Your task to perform on an android device: toggle translation in the chrome app Image 0: 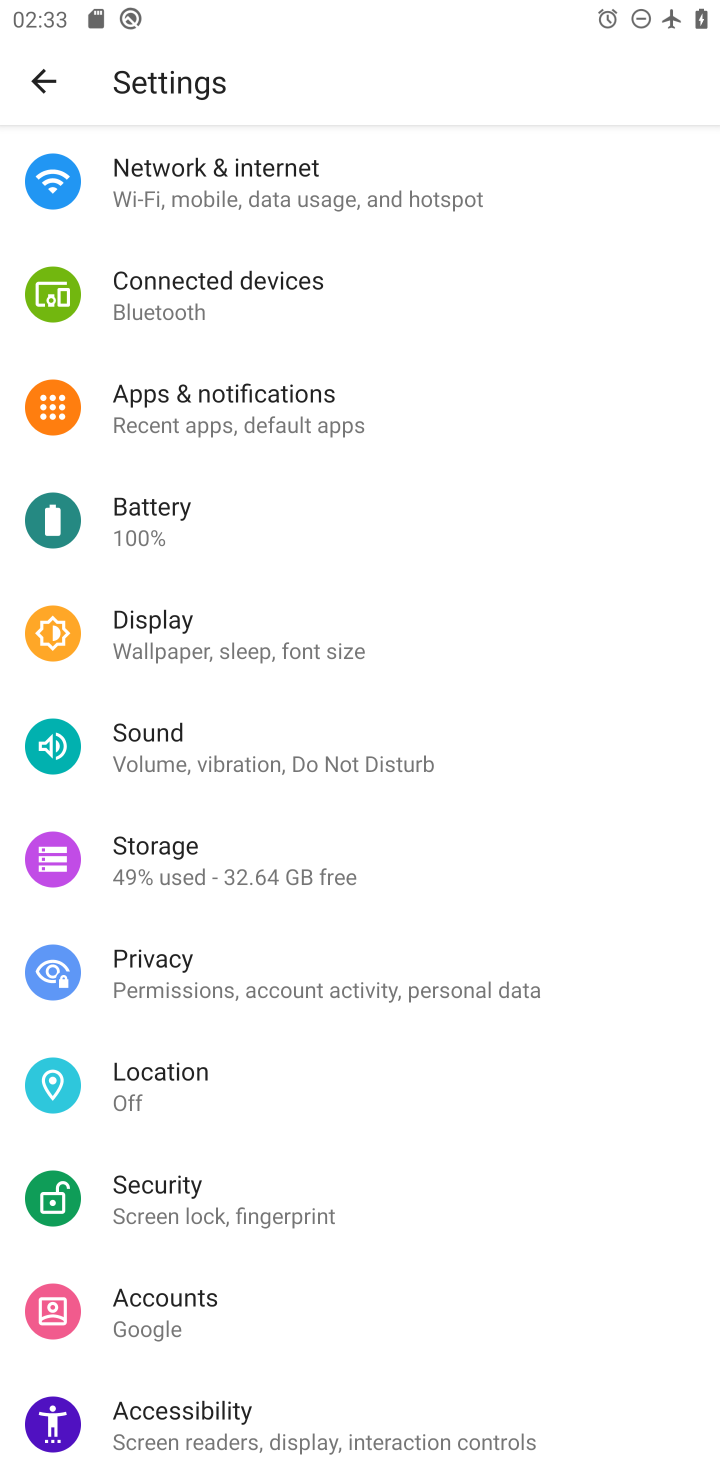
Step 0: press home button
Your task to perform on an android device: toggle translation in the chrome app Image 1: 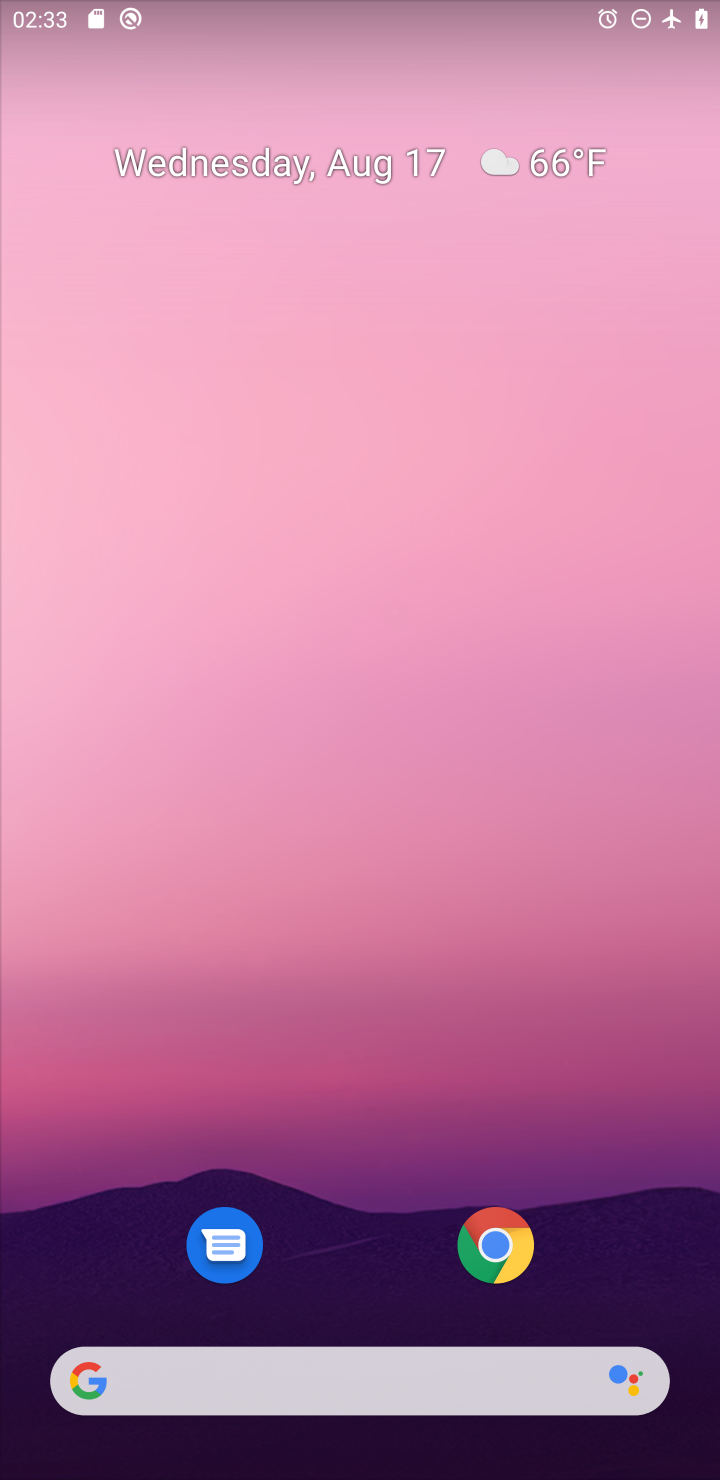
Step 1: click (491, 1260)
Your task to perform on an android device: toggle translation in the chrome app Image 2: 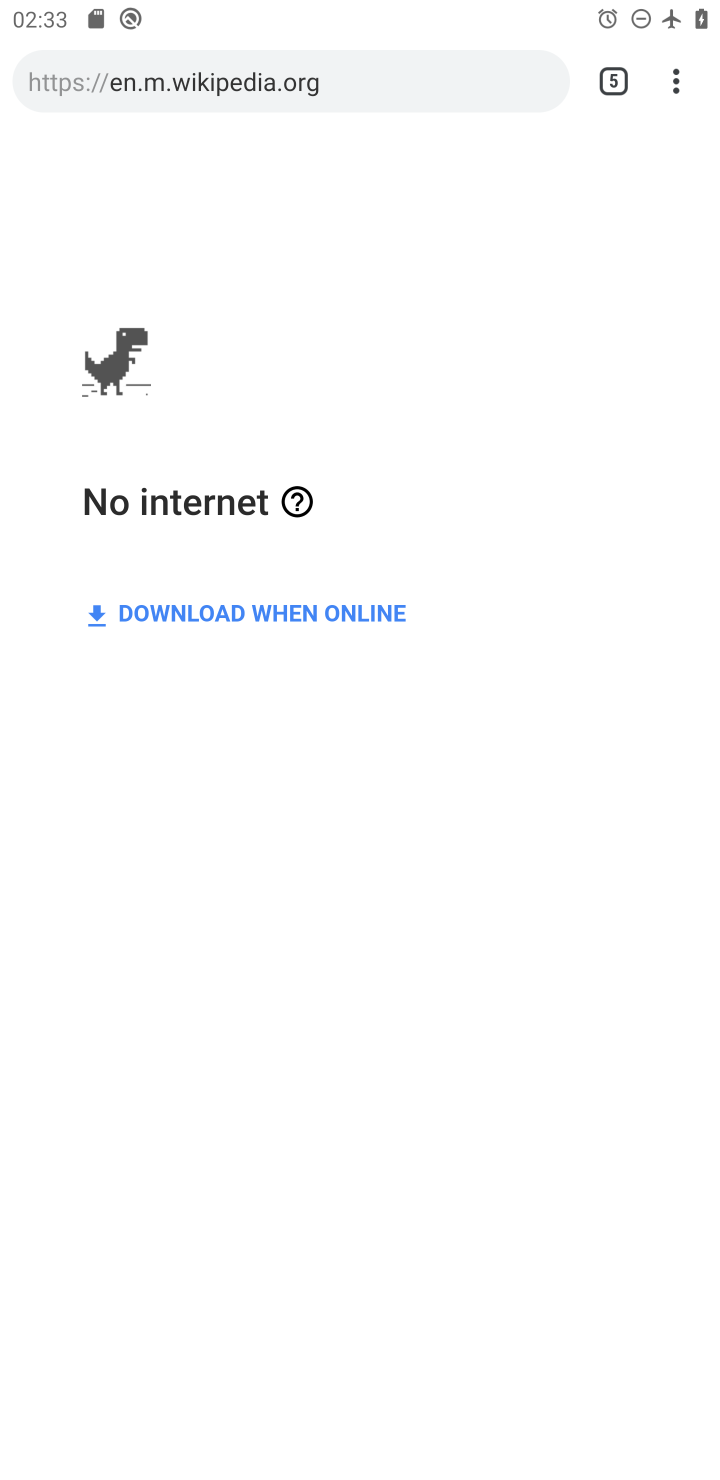
Step 2: drag from (675, 88) to (390, 999)
Your task to perform on an android device: toggle translation in the chrome app Image 3: 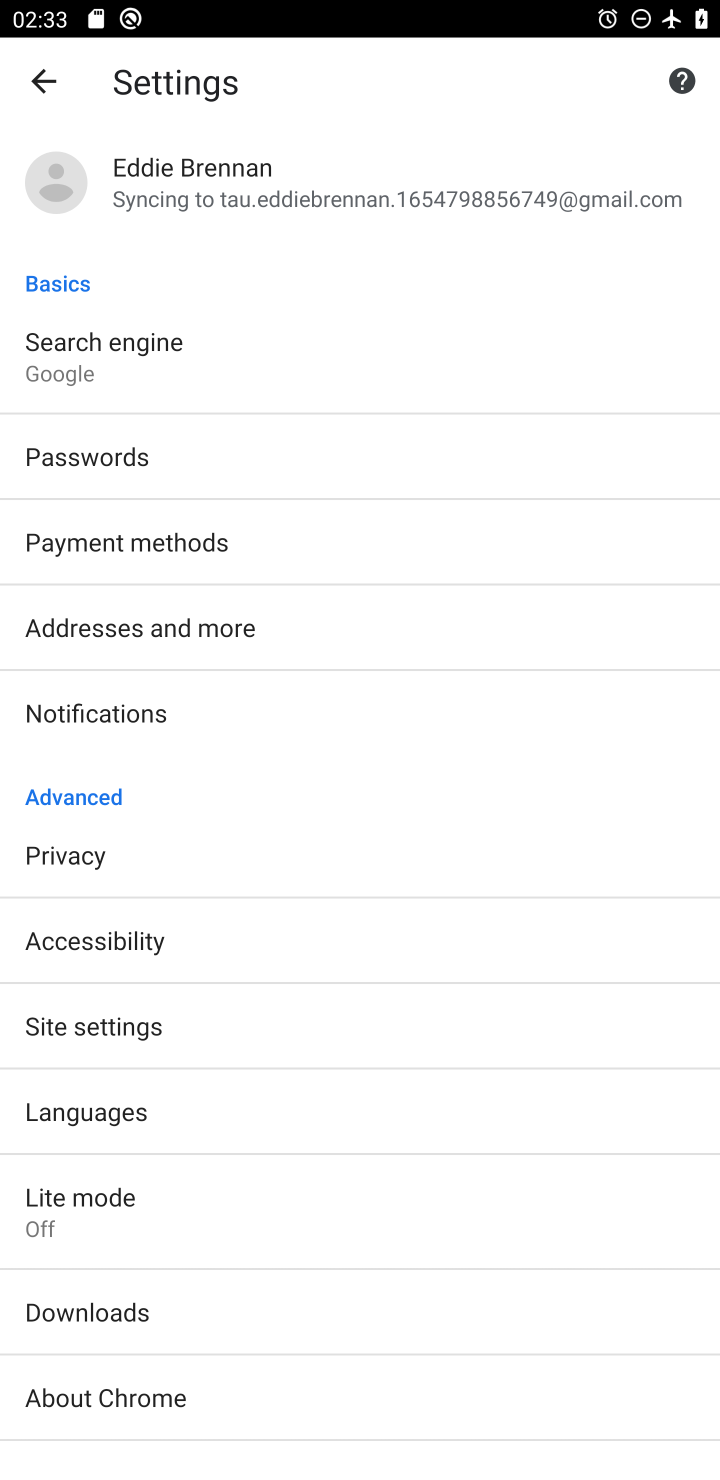
Step 3: click (107, 1110)
Your task to perform on an android device: toggle translation in the chrome app Image 4: 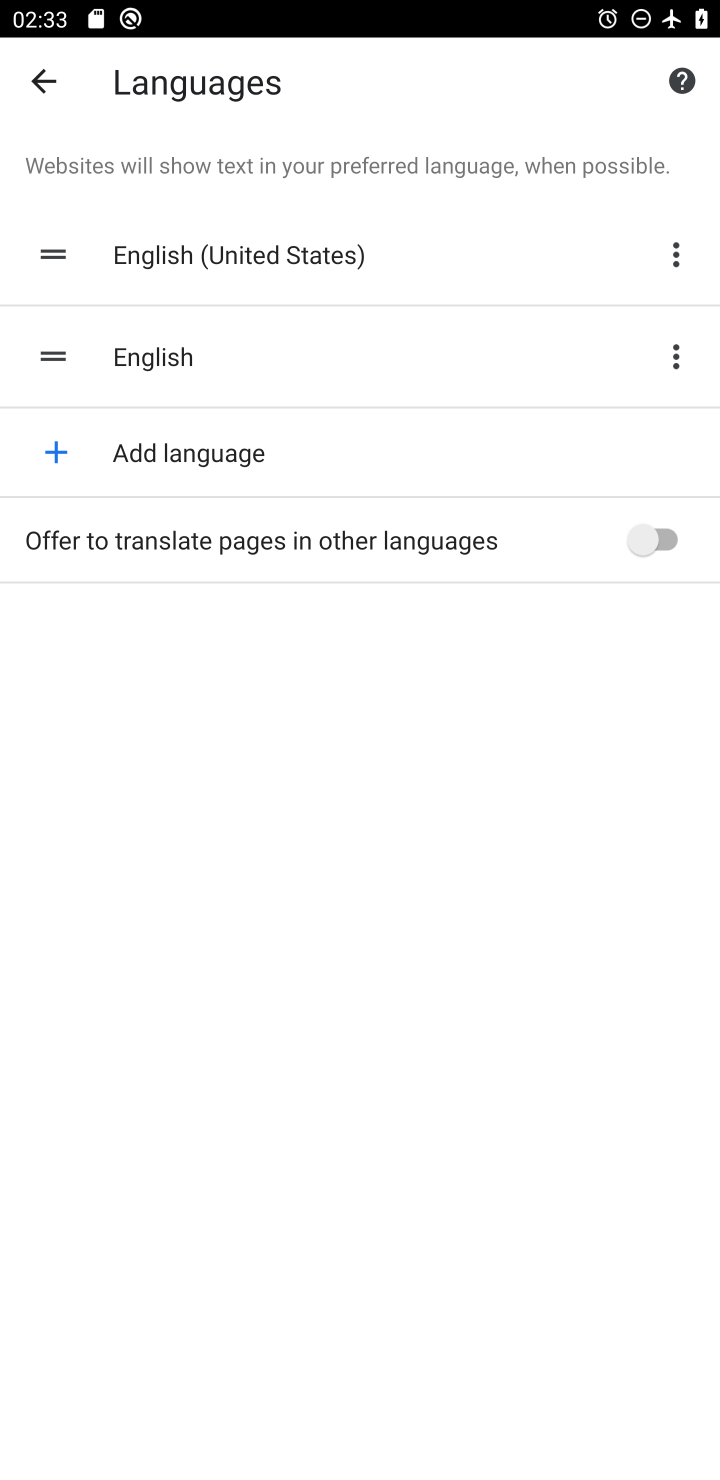
Step 4: click (663, 533)
Your task to perform on an android device: toggle translation in the chrome app Image 5: 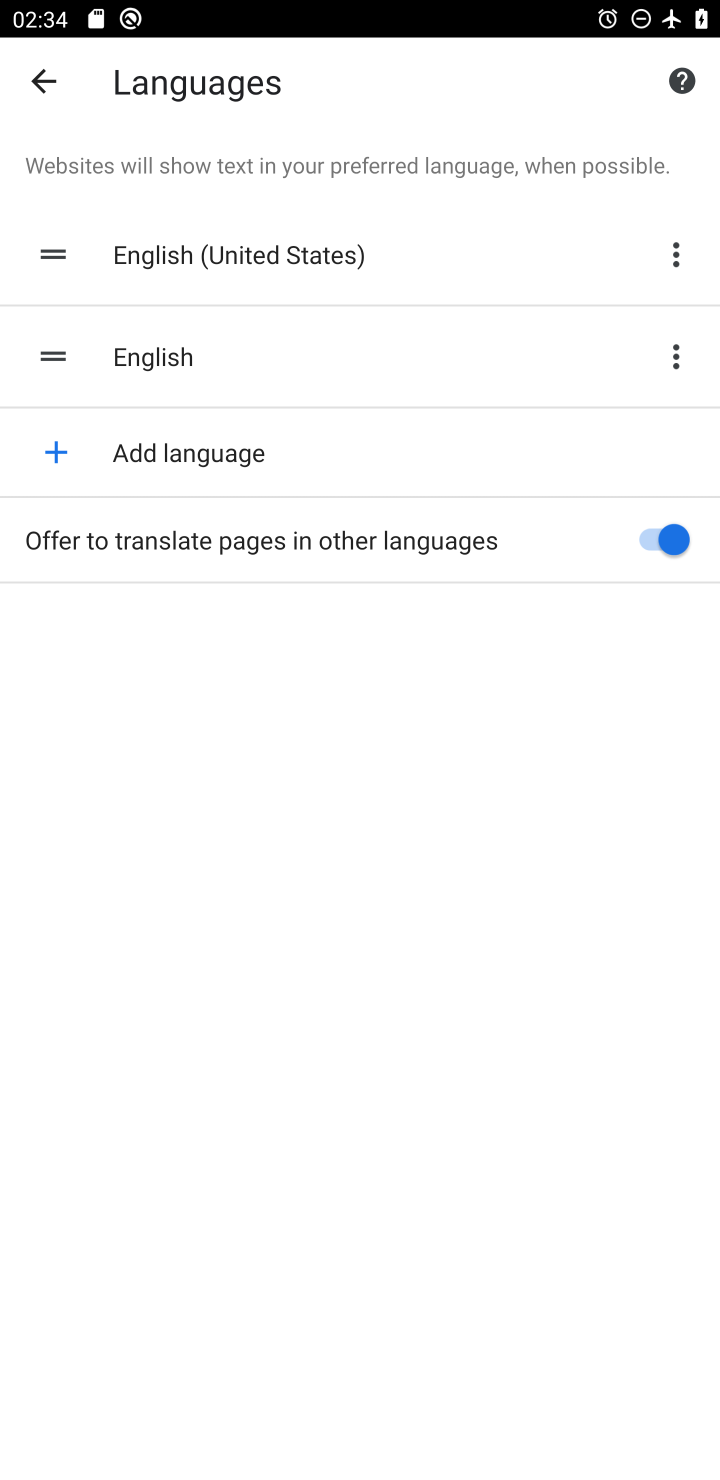
Step 5: task complete